Your task to perform on an android device: all mails in gmail Image 0: 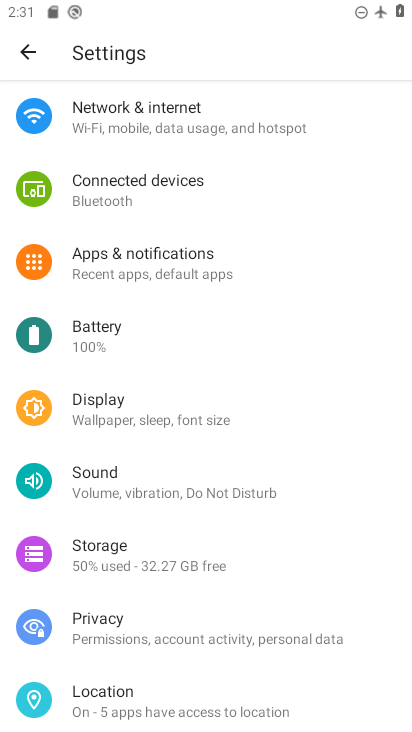
Step 0: press home button
Your task to perform on an android device: all mails in gmail Image 1: 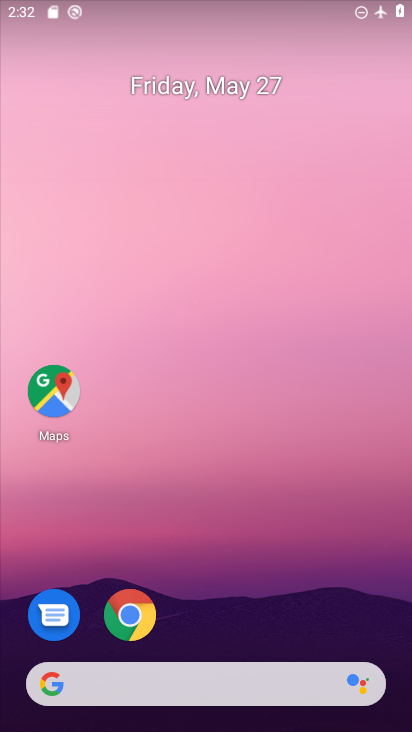
Step 1: drag from (319, 618) to (310, 150)
Your task to perform on an android device: all mails in gmail Image 2: 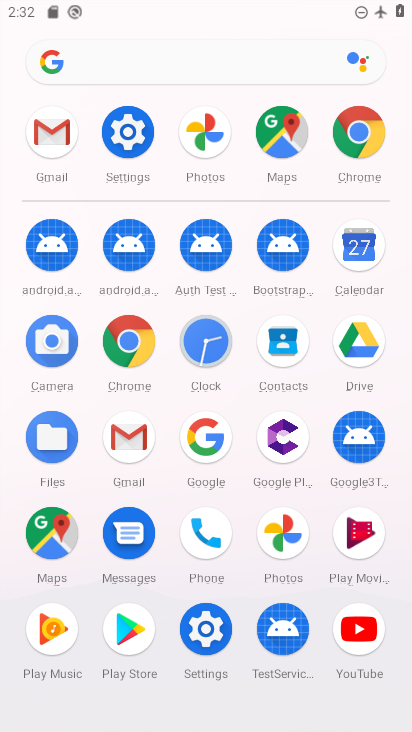
Step 2: click (147, 439)
Your task to perform on an android device: all mails in gmail Image 3: 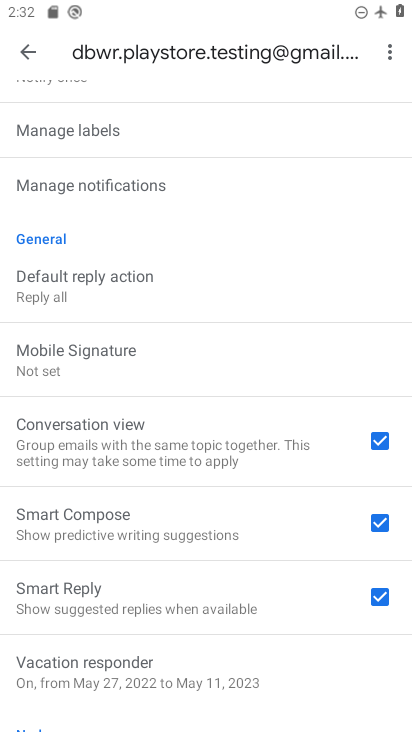
Step 3: press back button
Your task to perform on an android device: all mails in gmail Image 4: 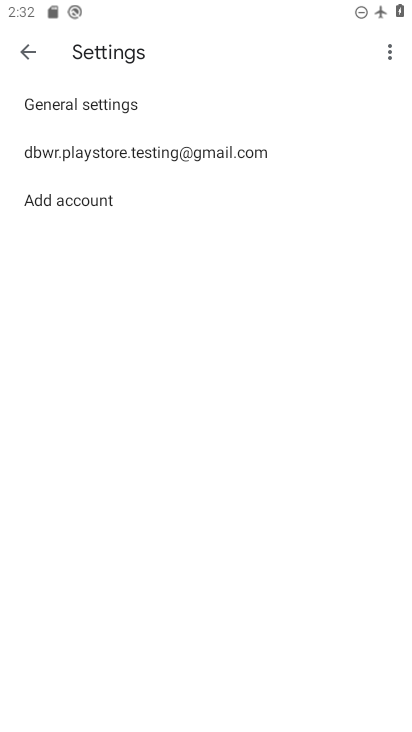
Step 4: press back button
Your task to perform on an android device: all mails in gmail Image 5: 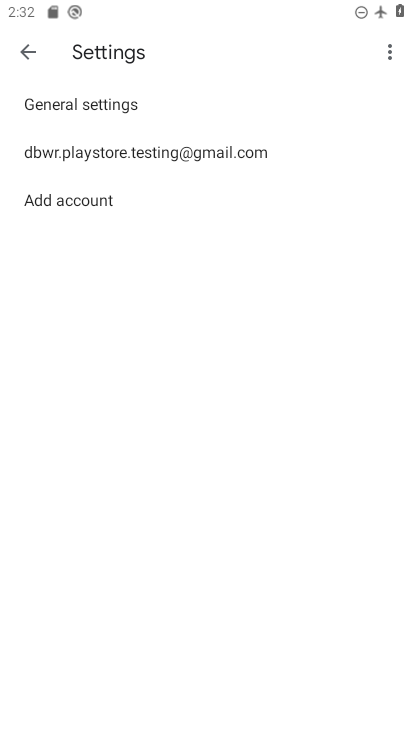
Step 5: press back button
Your task to perform on an android device: all mails in gmail Image 6: 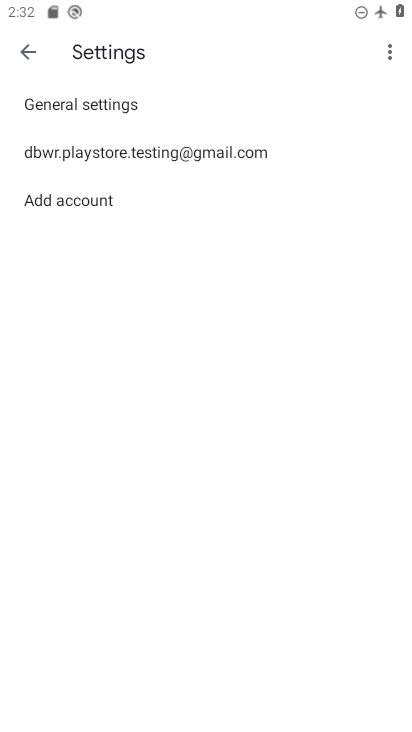
Step 6: click (28, 53)
Your task to perform on an android device: all mails in gmail Image 7: 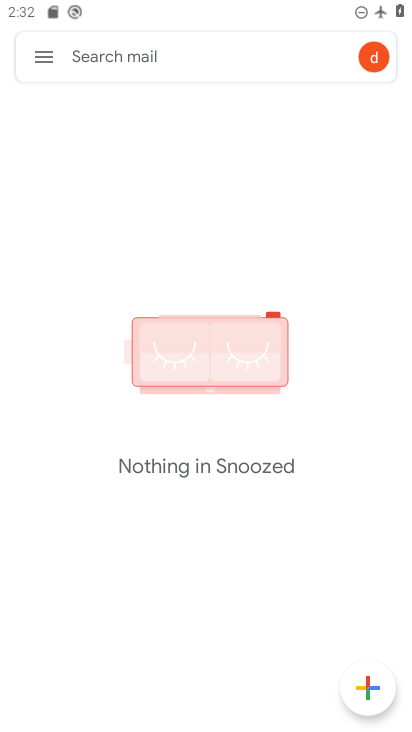
Step 7: click (28, 53)
Your task to perform on an android device: all mails in gmail Image 8: 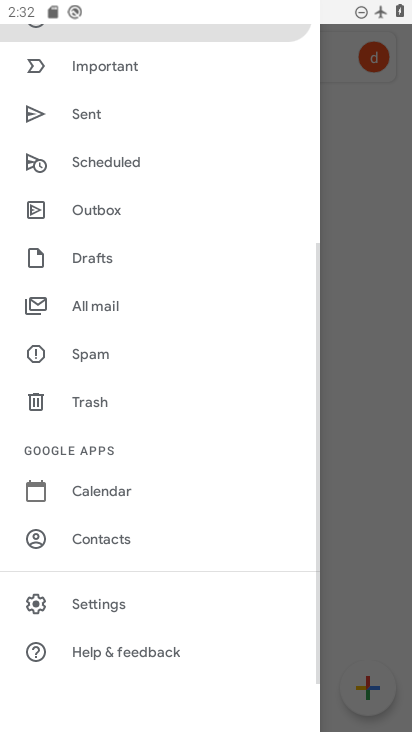
Step 8: click (137, 301)
Your task to perform on an android device: all mails in gmail Image 9: 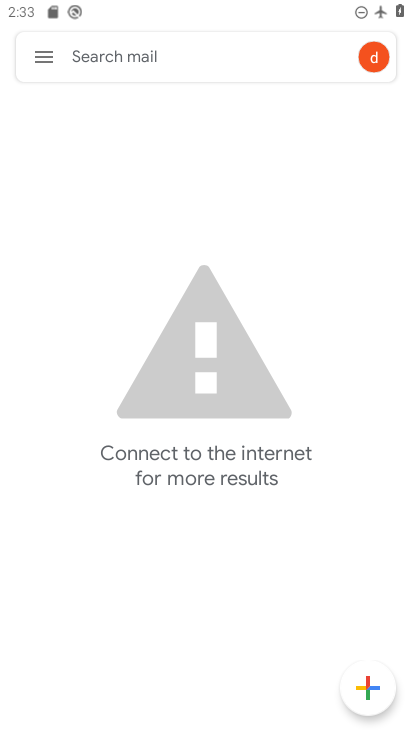
Step 9: task complete